Your task to perform on an android device: open wifi settings Image 0: 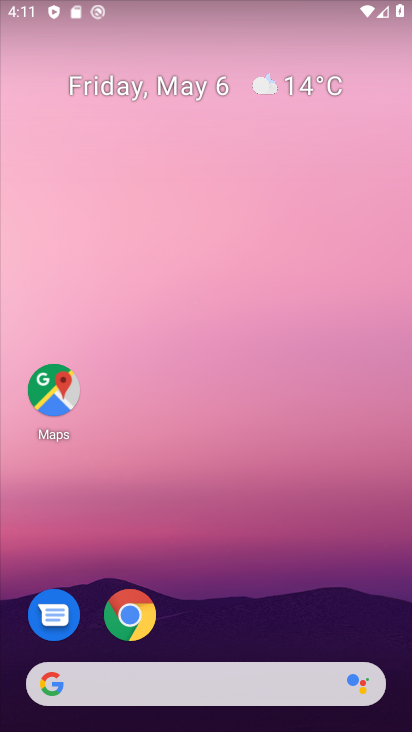
Step 0: drag from (233, 568) to (215, 49)
Your task to perform on an android device: open wifi settings Image 1: 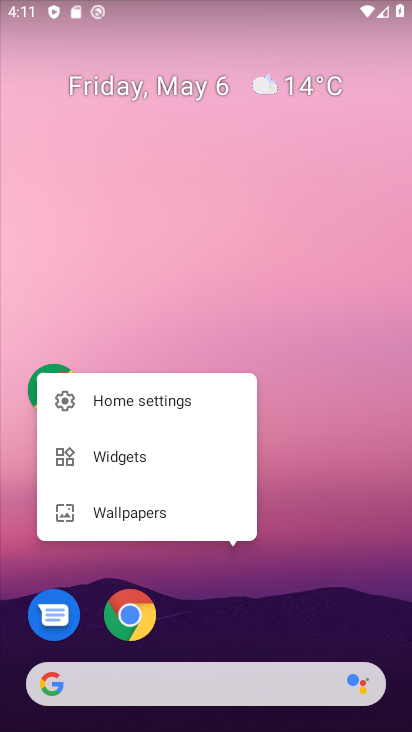
Step 1: click (329, 541)
Your task to perform on an android device: open wifi settings Image 2: 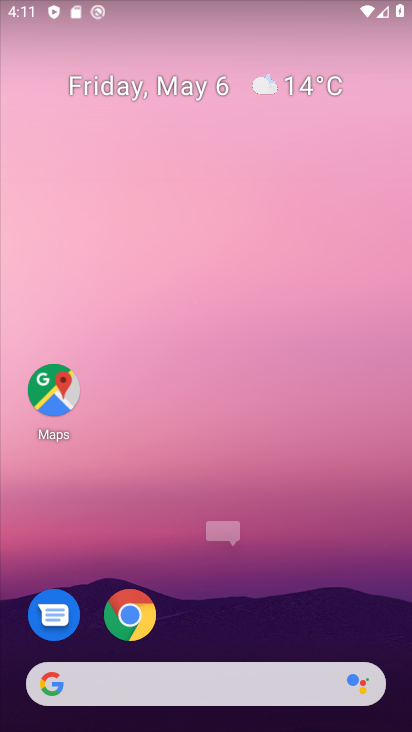
Step 2: drag from (329, 541) to (310, 192)
Your task to perform on an android device: open wifi settings Image 3: 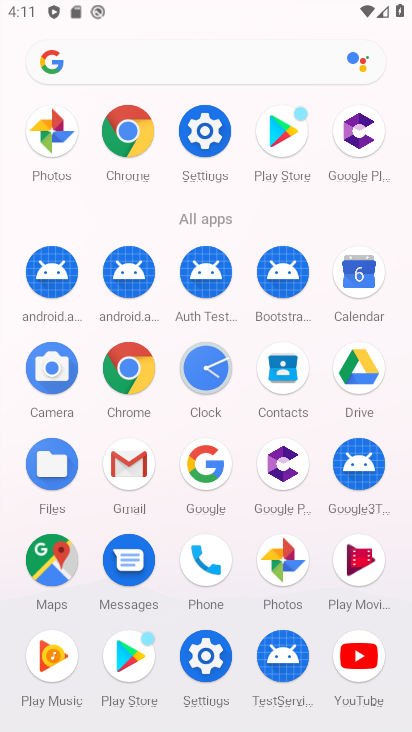
Step 3: click (220, 131)
Your task to perform on an android device: open wifi settings Image 4: 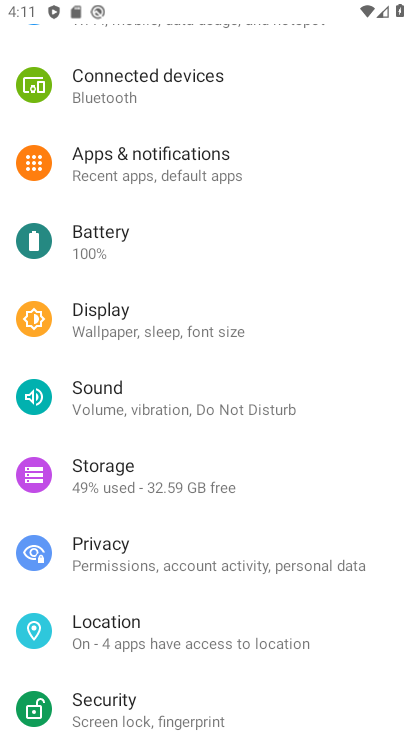
Step 4: drag from (201, 120) to (242, 459)
Your task to perform on an android device: open wifi settings Image 5: 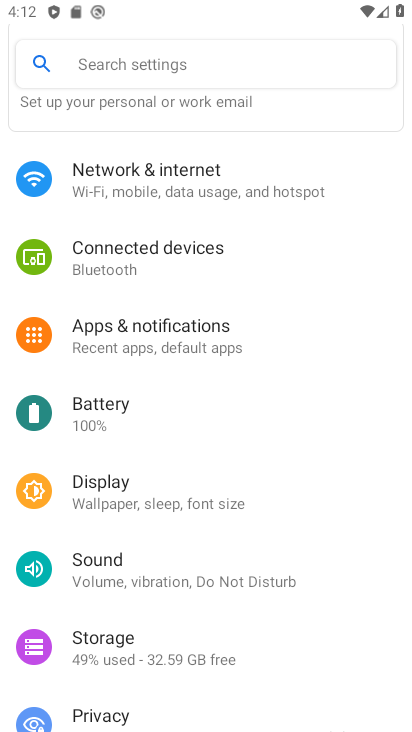
Step 5: click (175, 173)
Your task to perform on an android device: open wifi settings Image 6: 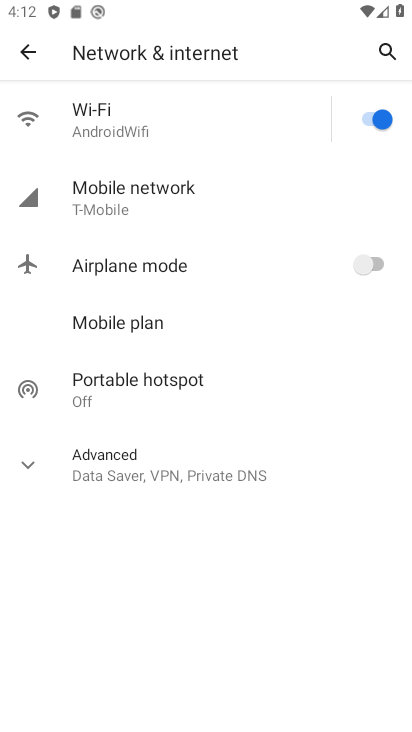
Step 6: click (185, 136)
Your task to perform on an android device: open wifi settings Image 7: 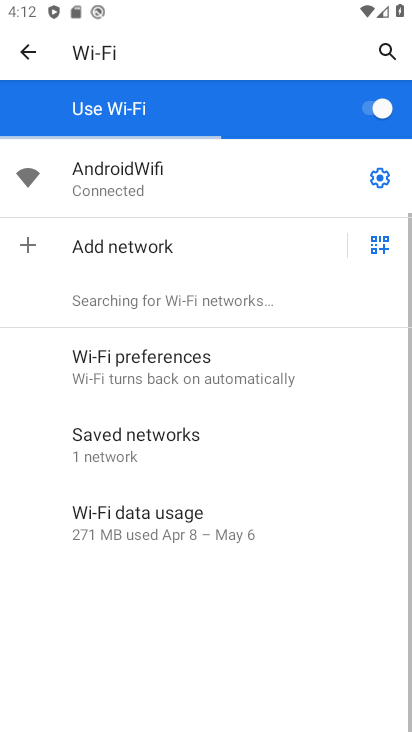
Step 7: task complete